Your task to perform on an android device: uninstall "Microsoft Excel" Image 0: 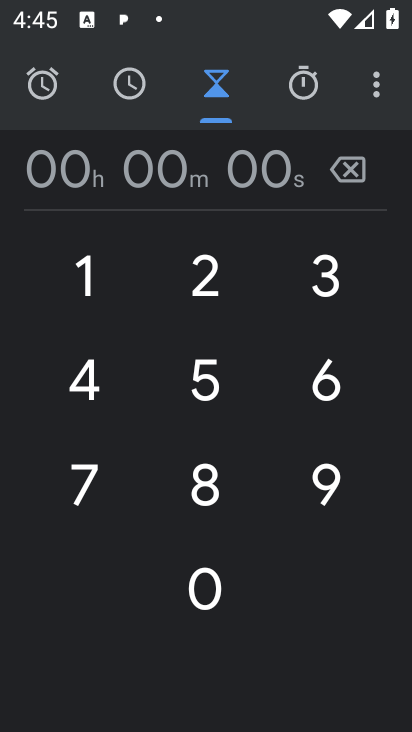
Step 0: press home button
Your task to perform on an android device: uninstall "Microsoft Excel" Image 1: 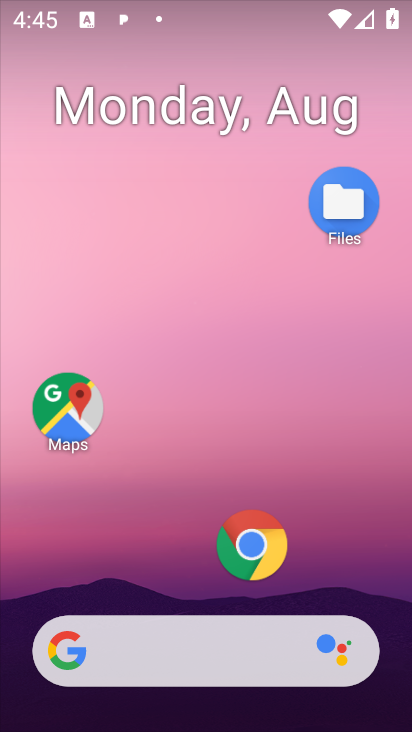
Step 1: drag from (157, 572) to (323, 4)
Your task to perform on an android device: uninstall "Microsoft Excel" Image 2: 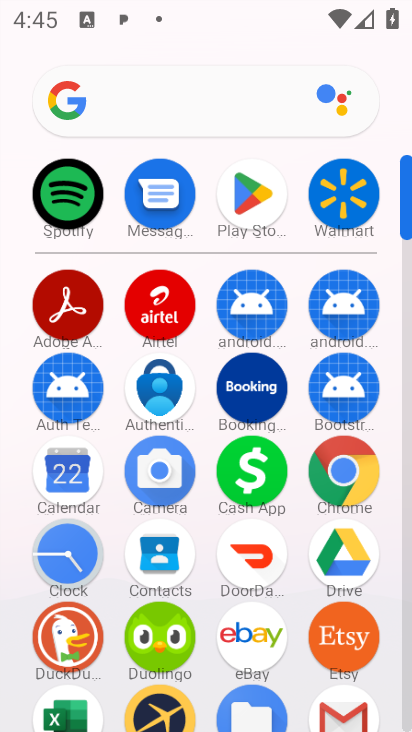
Step 2: click (239, 195)
Your task to perform on an android device: uninstall "Microsoft Excel" Image 3: 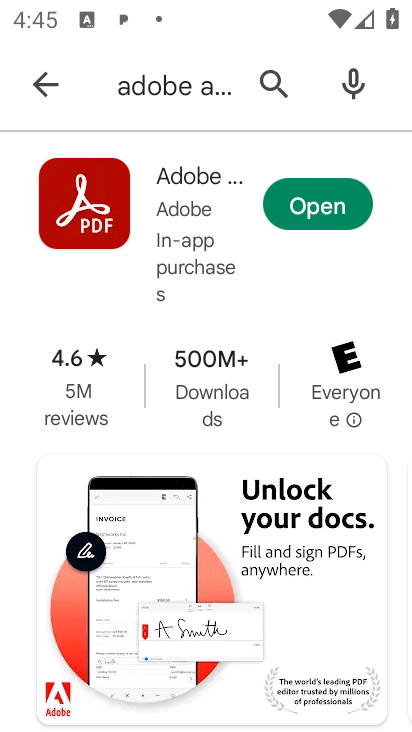
Step 3: click (270, 77)
Your task to perform on an android device: uninstall "Microsoft Excel" Image 4: 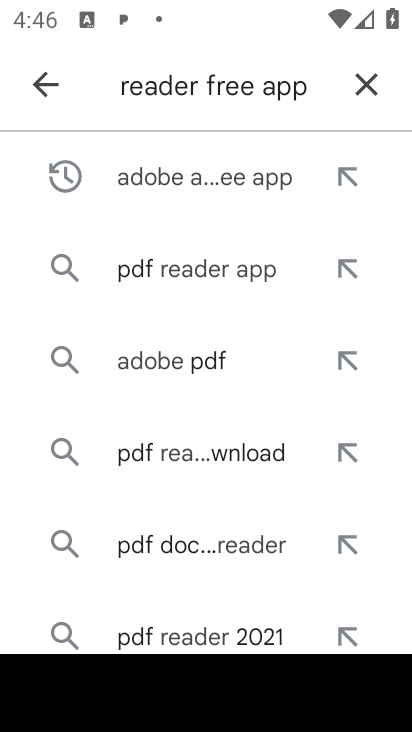
Step 4: click (365, 85)
Your task to perform on an android device: uninstall "Microsoft Excel" Image 5: 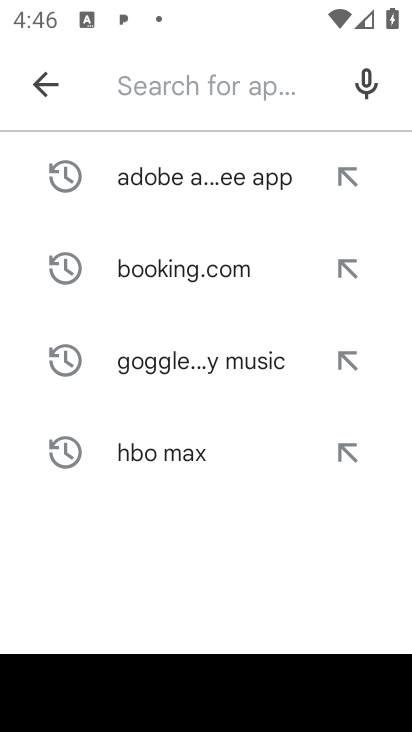
Step 5: click (138, 77)
Your task to perform on an android device: uninstall "Microsoft Excel" Image 6: 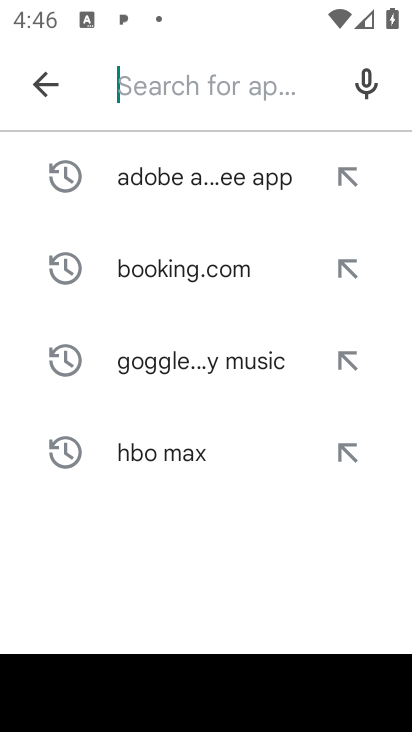
Step 6: type "Microsoft Excel"
Your task to perform on an android device: uninstall "Microsoft Excel" Image 7: 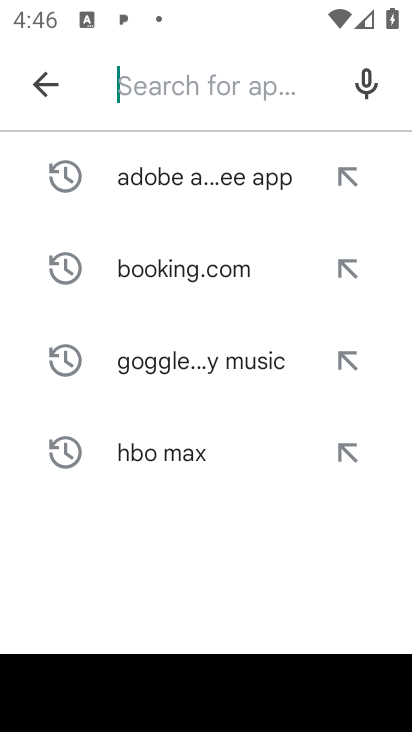
Step 7: click (220, 570)
Your task to perform on an android device: uninstall "Microsoft Excel" Image 8: 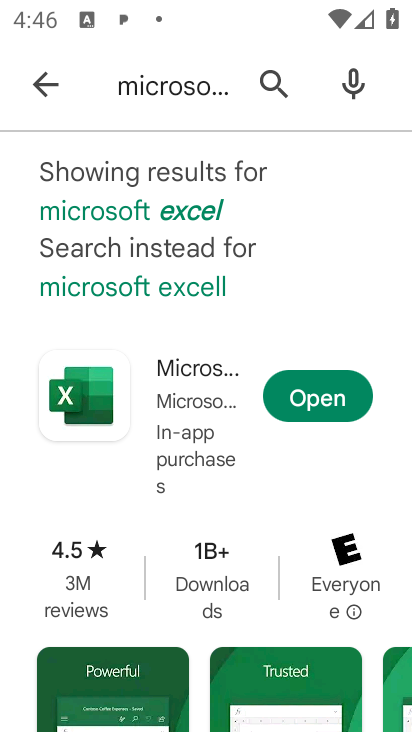
Step 8: click (178, 405)
Your task to perform on an android device: uninstall "Microsoft Excel" Image 9: 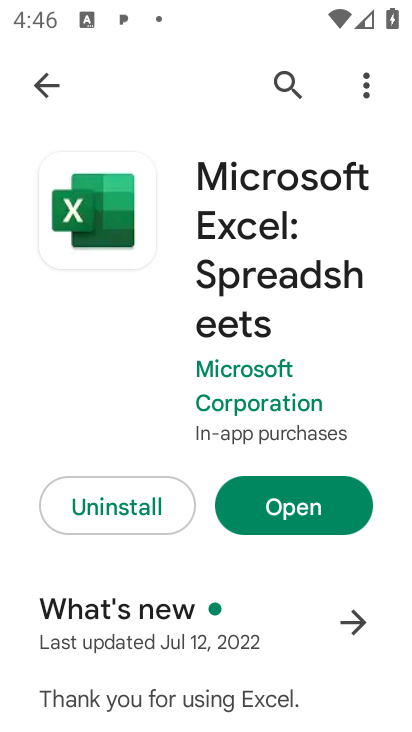
Step 9: click (111, 499)
Your task to perform on an android device: uninstall "Microsoft Excel" Image 10: 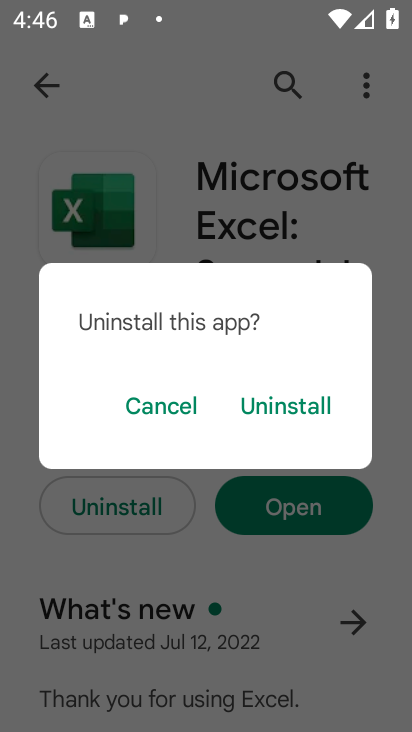
Step 10: click (287, 403)
Your task to perform on an android device: uninstall "Microsoft Excel" Image 11: 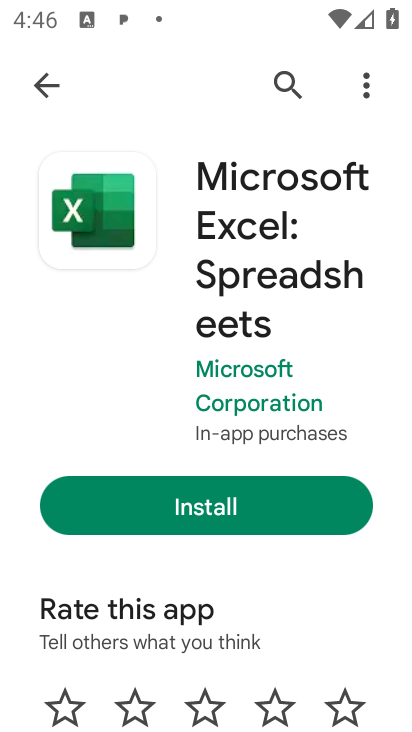
Step 11: task complete